Your task to perform on an android device: turn off location Image 0: 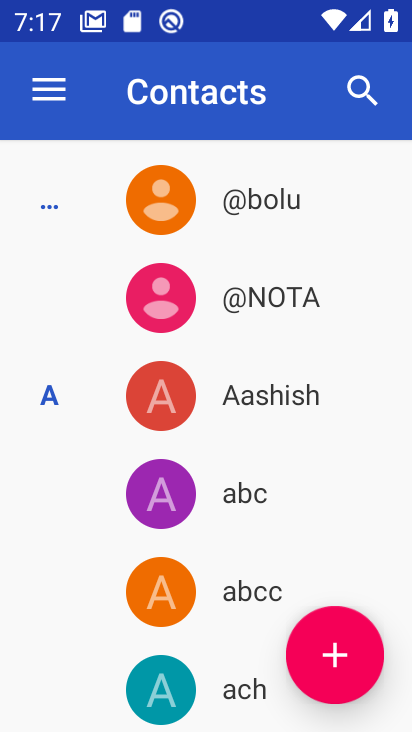
Step 0: press home button
Your task to perform on an android device: turn off location Image 1: 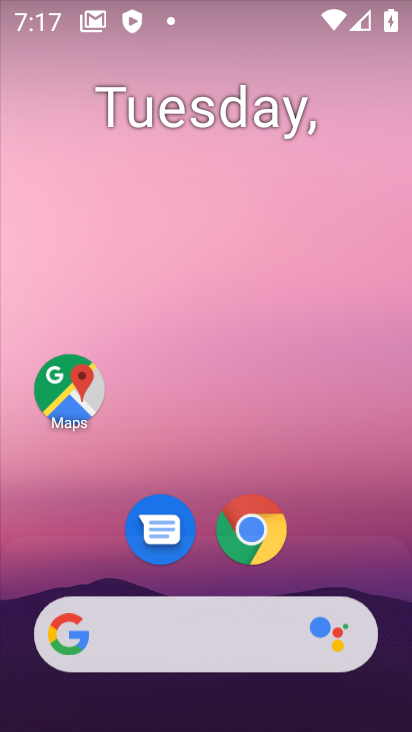
Step 1: drag from (162, 641) to (281, 54)
Your task to perform on an android device: turn off location Image 2: 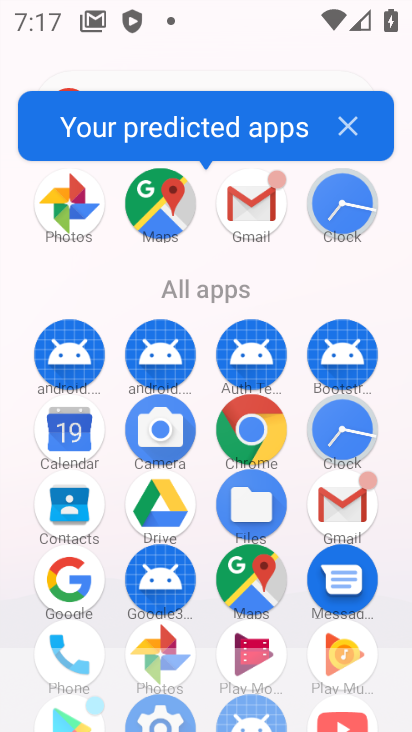
Step 2: drag from (225, 538) to (400, 164)
Your task to perform on an android device: turn off location Image 3: 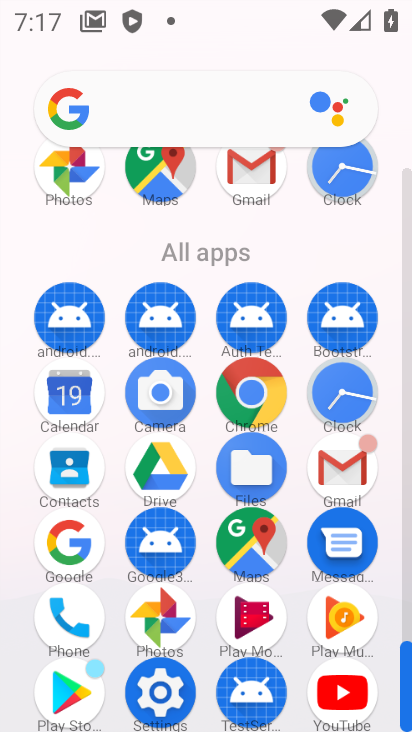
Step 3: click (155, 697)
Your task to perform on an android device: turn off location Image 4: 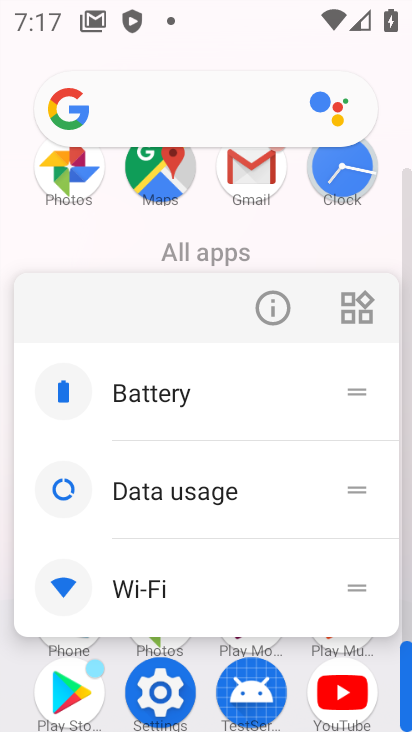
Step 4: click (169, 687)
Your task to perform on an android device: turn off location Image 5: 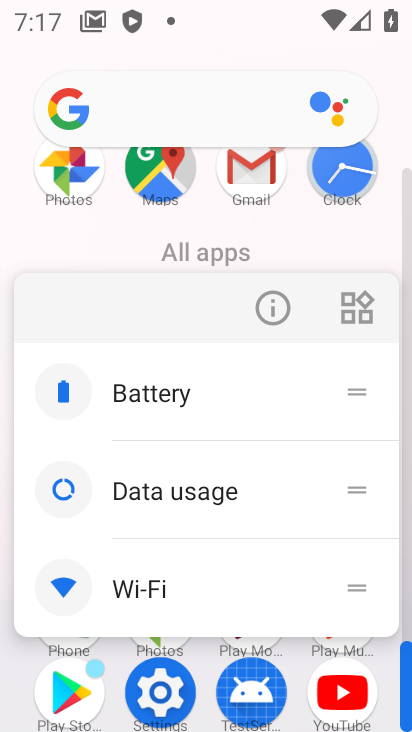
Step 5: click (159, 693)
Your task to perform on an android device: turn off location Image 6: 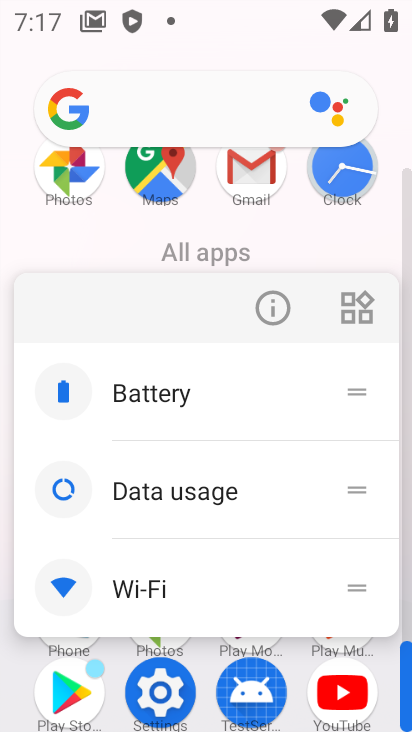
Step 6: click (159, 693)
Your task to perform on an android device: turn off location Image 7: 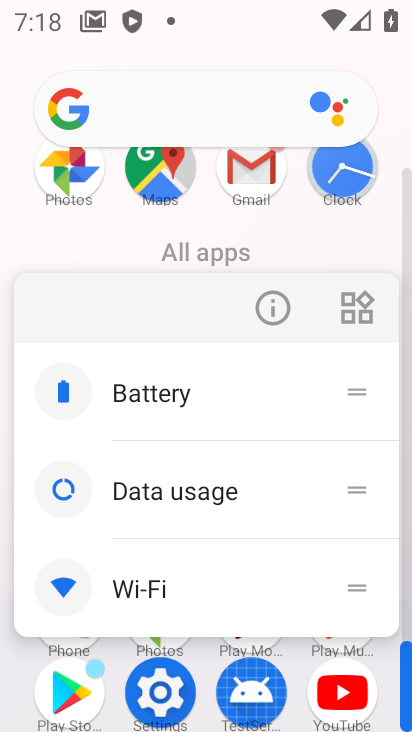
Step 7: click (156, 695)
Your task to perform on an android device: turn off location Image 8: 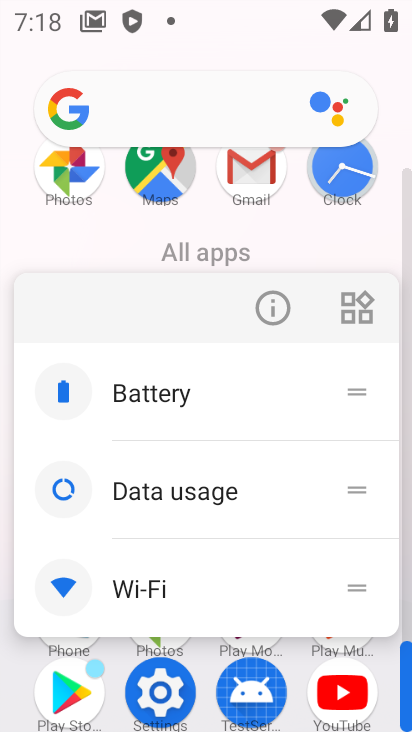
Step 8: click (163, 700)
Your task to perform on an android device: turn off location Image 9: 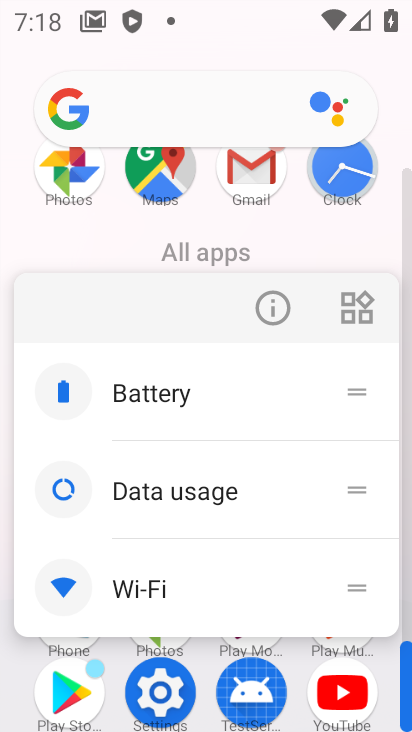
Step 9: click (174, 689)
Your task to perform on an android device: turn off location Image 10: 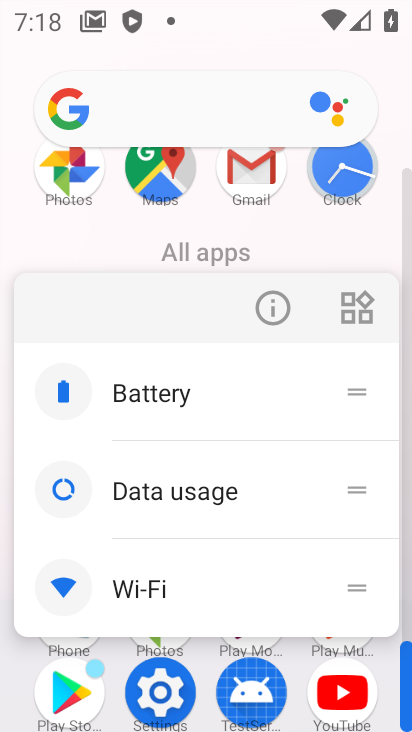
Step 10: click (168, 692)
Your task to perform on an android device: turn off location Image 11: 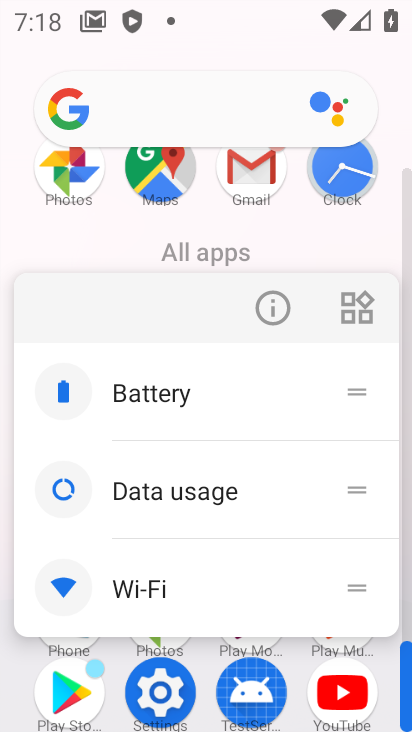
Step 11: click (152, 699)
Your task to perform on an android device: turn off location Image 12: 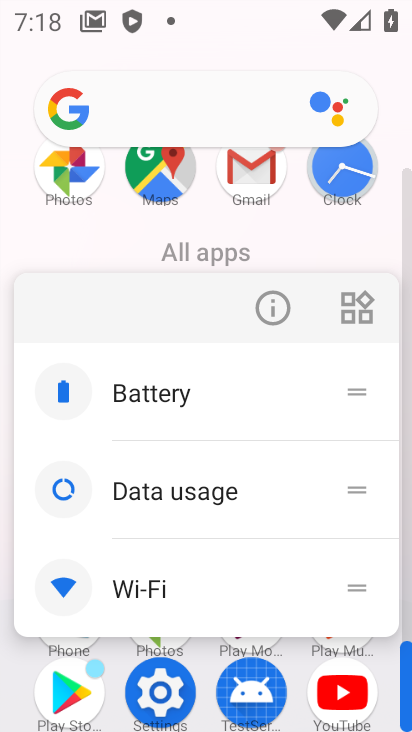
Step 12: click (163, 693)
Your task to perform on an android device: turn off location Image 13: 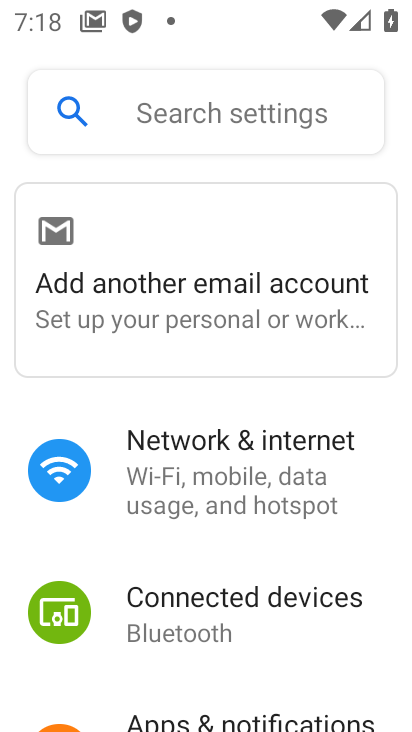
Step 13: drag from (224, 584) to (302, 318)
Your task to perform on an android device: turn off location Image 14: 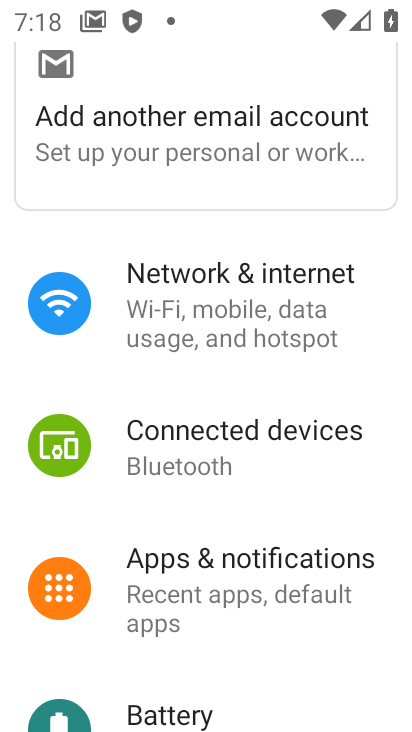
Step 14: drag from (208, 597) to (367, 111)
Your task to perform on an android device: turn off location Image 15: 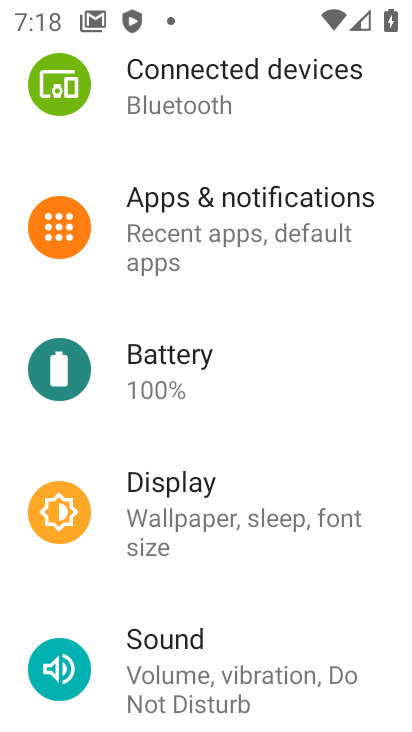
Step 15: drag from (236, 617) to (359, 150)
Your task to perform on an android device: turn off location Image 16: 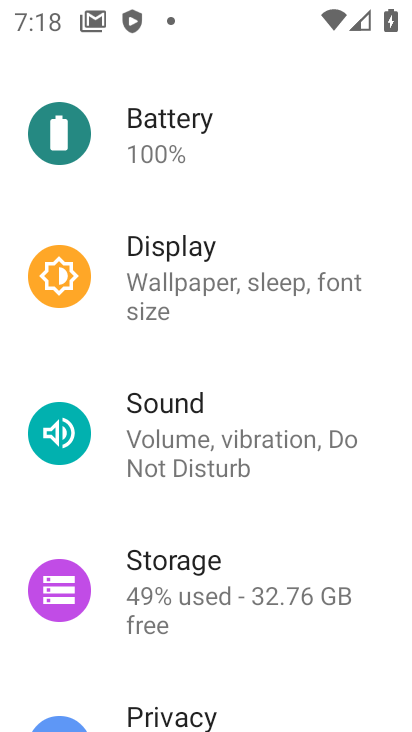
Step 16: drag from (222, 634) to (343, 97)
Your task to perform on an android device: turn off location Image 17: 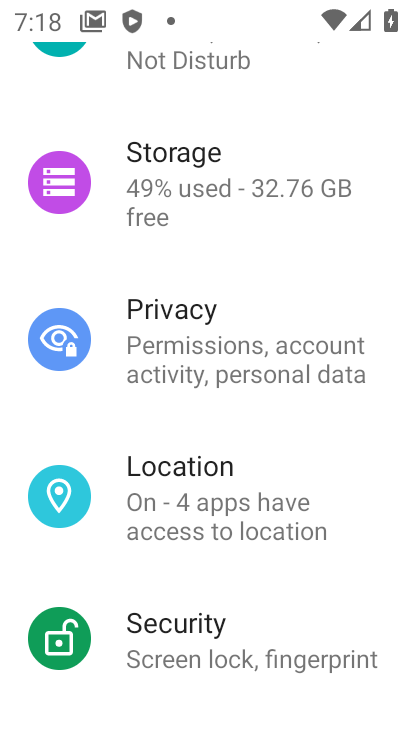
Step 17: click (214, 484)
Your task to perform on an android device: turn off location Image 18: 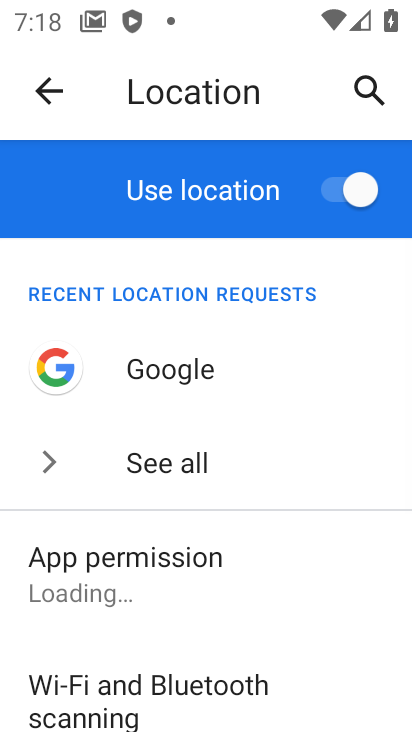
Step 18: click (333, 189)
Your task to perform on an android device: turn off location Image 19: 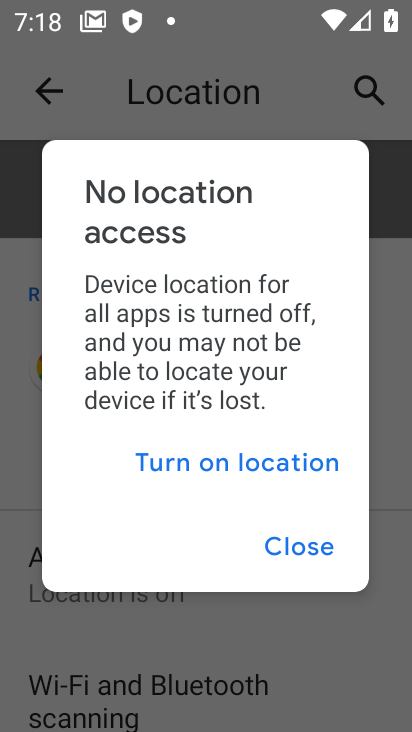
Step 19: task complete